Your task to perform on an android device: open app "Lyft - Rideshare, Bikes, Scooters & Transit" (install if not already installed) and go to login screen Image 0: 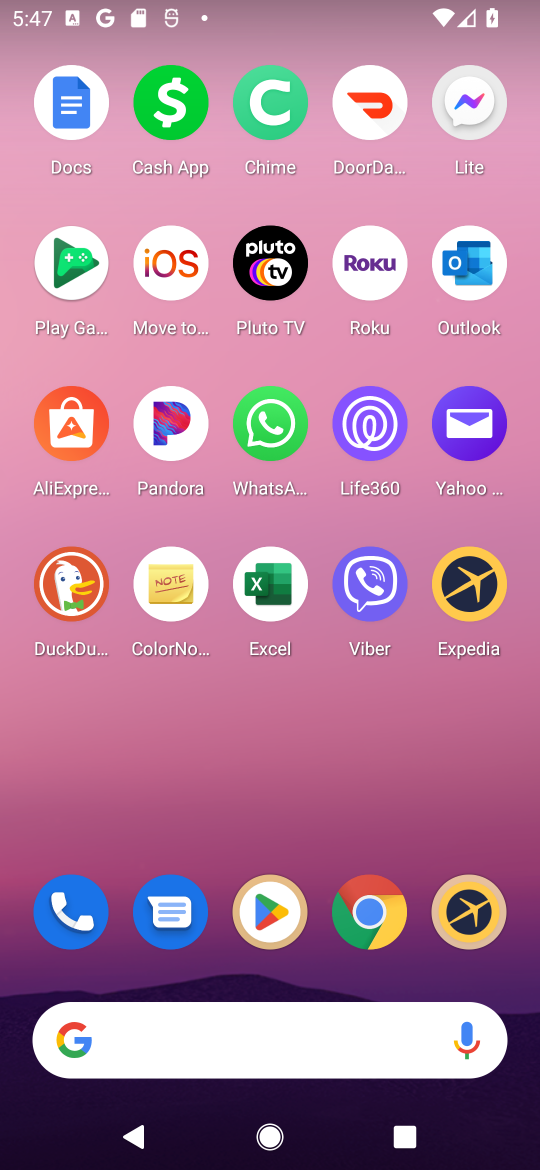
Step 0: click (262, 908)
Your task to perform on an android device: open app "Lyft - Rideshare, Bikes, Scooters & Transit" (install if not already installed) and go to login screen Image 1: 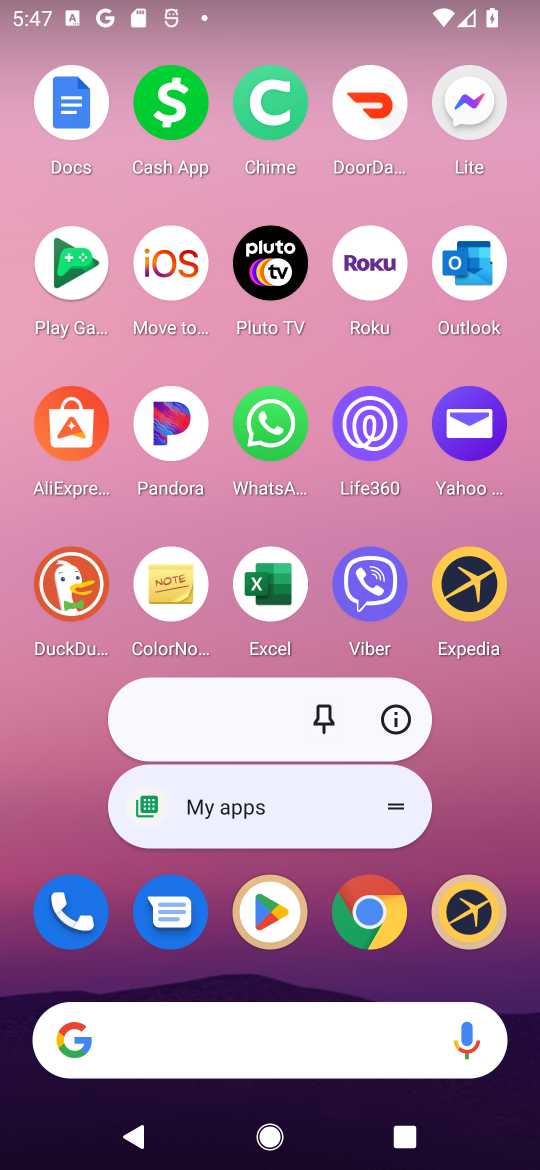
Step 1: click (270, 918)
Your task to perform on an android device: open app "Lyft - Rideshare, Bikes, Scooters & Transit" (install if not already installed) and go to login screen Image 2: 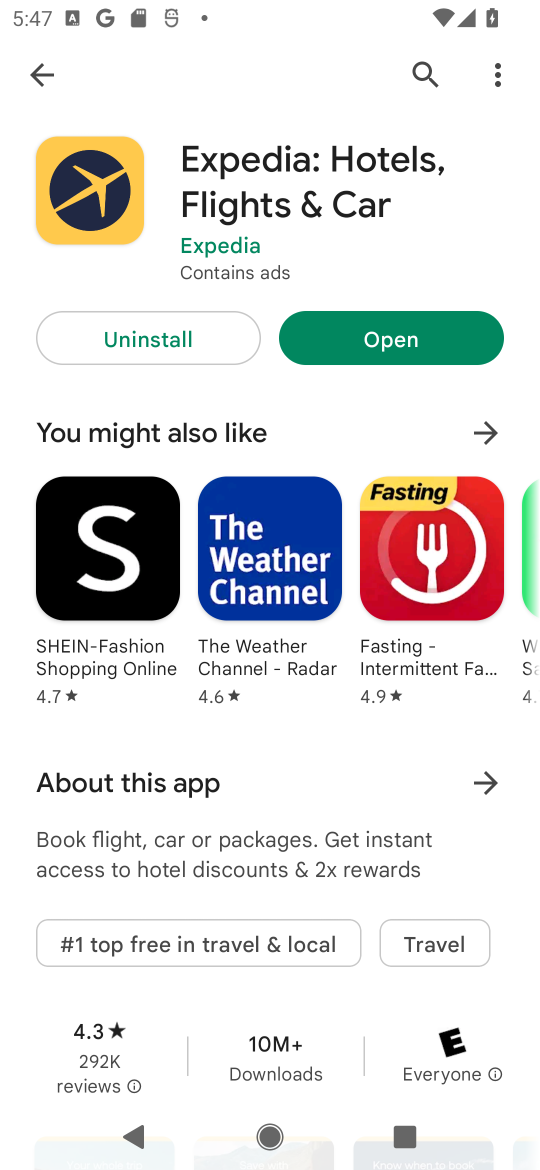
Step 2: click (21, 71)
Your task to perform on an android device: open app "Lyft - Rideshare, Bikes, Scooters & Transit" (install if not already installed) and go to login screen Image 3: 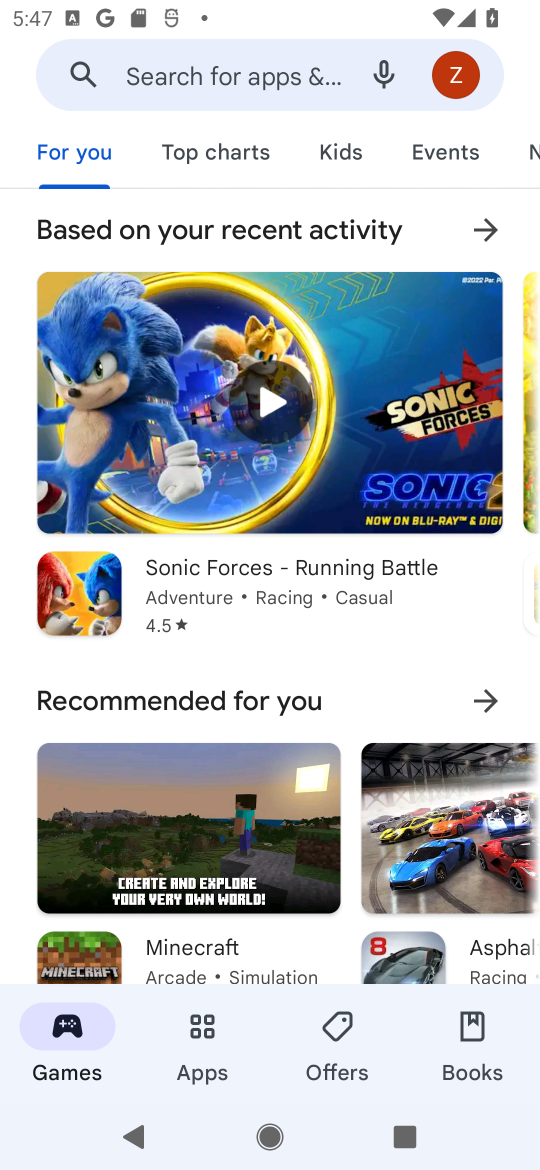
Step 3: click (129, 64)
Your task to perform on an android device: open app "Lyft - Rideshare, Bikes, Scooters & Transit" (install if not already installed) and go to login screen Image 4: 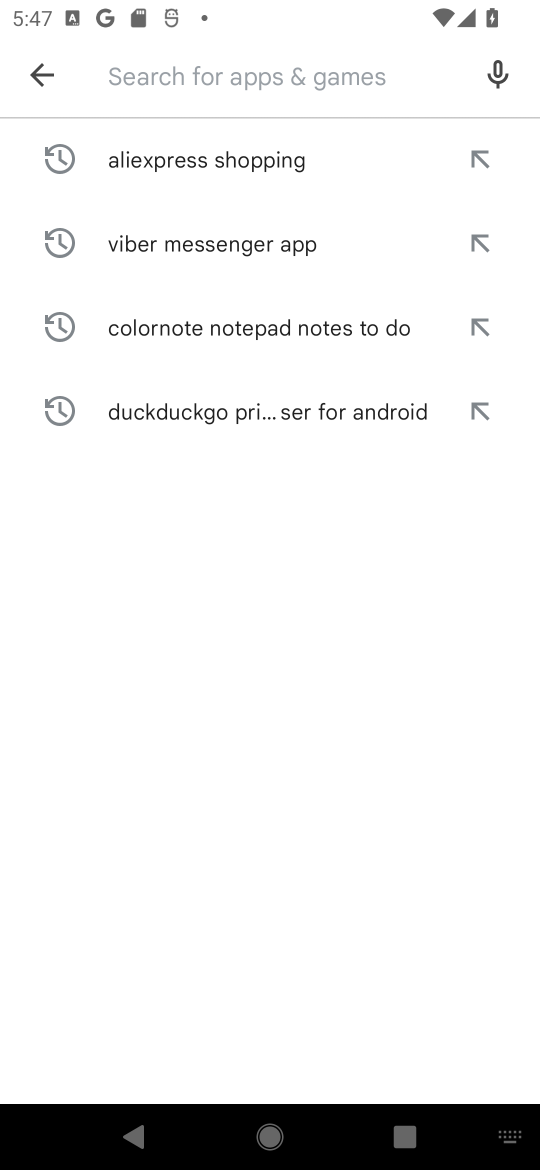
Step 4: type "lyft "
Your task to perform on an android device: open app "Lyft - Rideshare, Bikes, Scooters & Transit" (install if not already installed) and go to login screen Image 5: 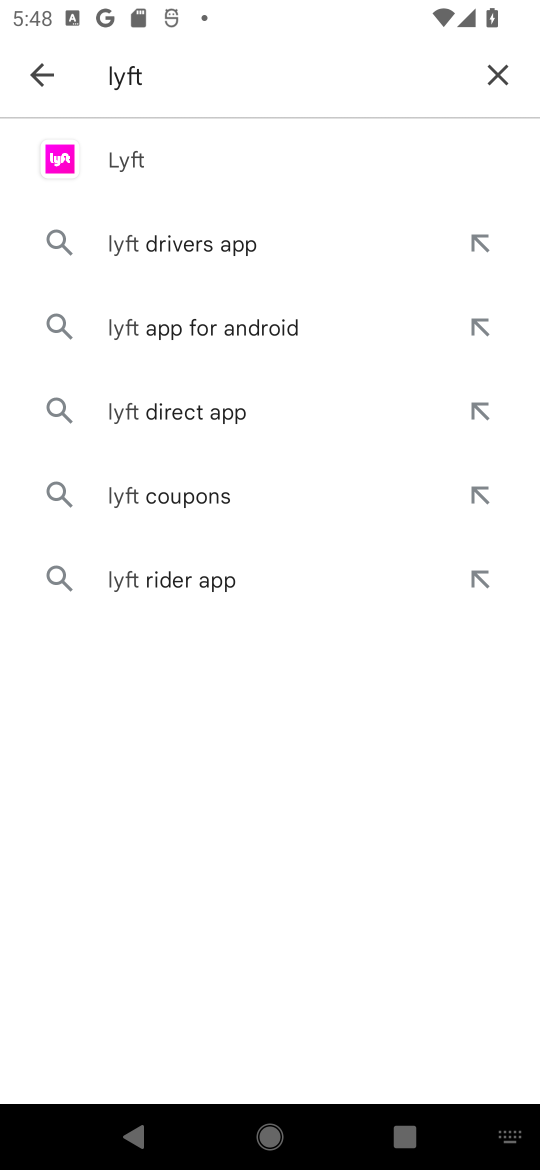
Step 5: click (181, 245)
Your task to perform on an android device: open app "Lyft - Rideshare, Bikes, Scooters & Transit" (install if not already installed) and go to login screen Image 6: 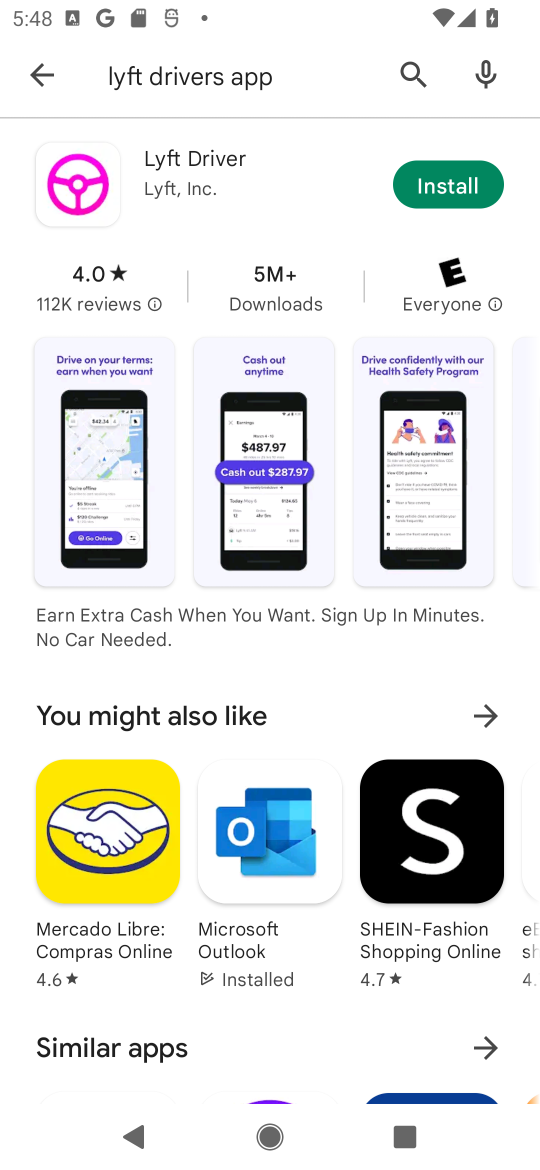
Step 6: click (441, 170)
Your task to perform on an android device: open app "Lyft - Rideshare, Bikes, Scooters & Transit" (install if not already installed) and go to login screen Image 7: 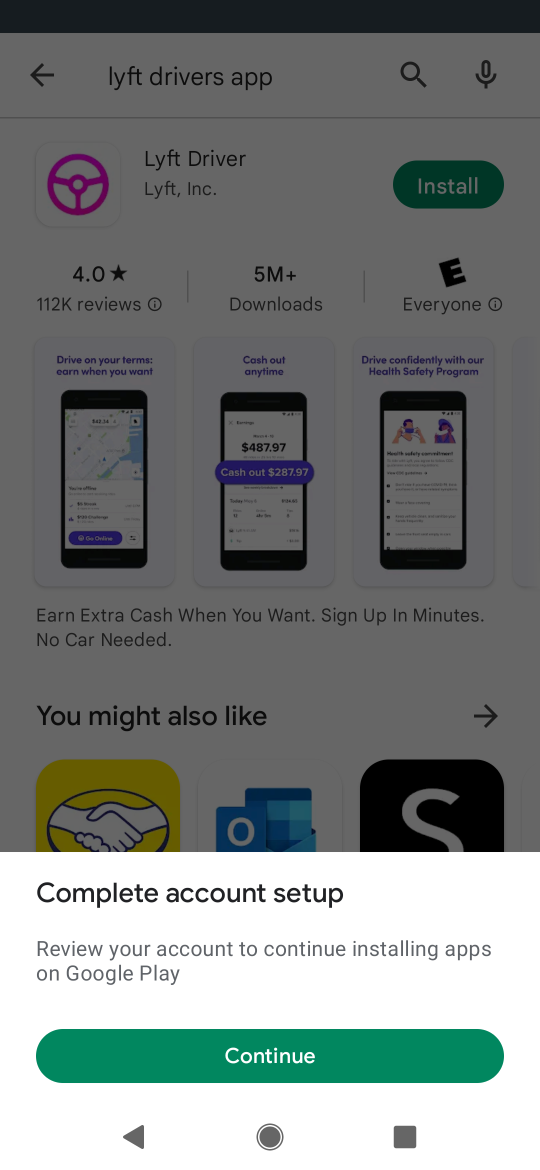
Step 7: task complete